Your task to perform on an android device: turn off sleep mode Image 0: 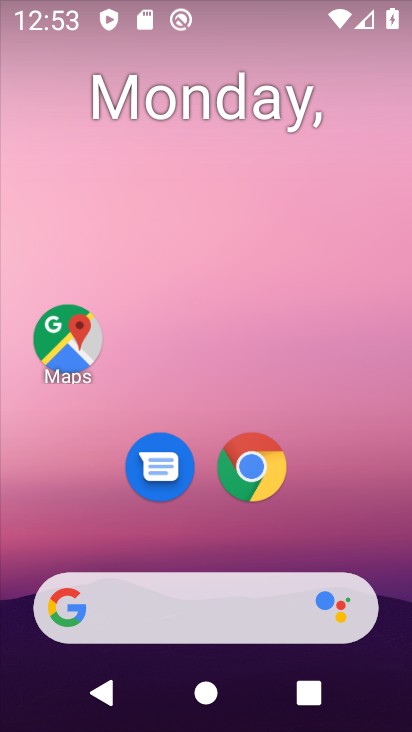
Step 0: drag from (345, 527) to (341, 9)
Your task to perform on an android device: turn off sleep mode Image 1: 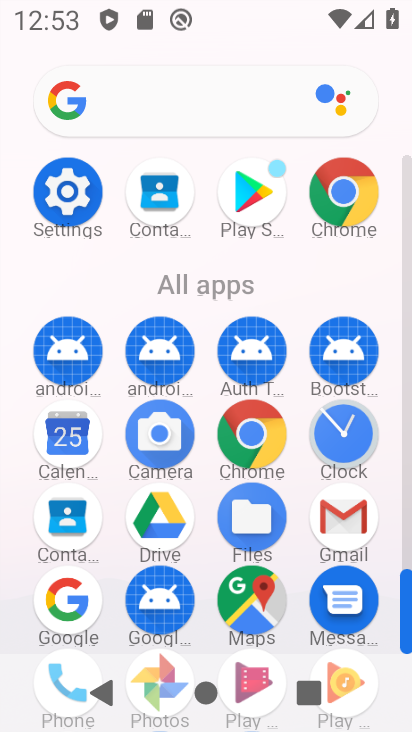
Step 1: click (68, 203)
Your task to perform on an android device: turn off sleep mode Image 2: 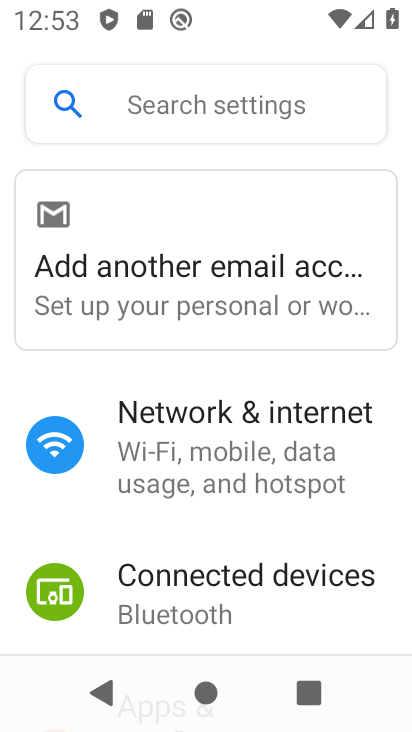
Step 2: drag from (214, 514) to (249, 155)
Your task to perform on an android device: turn off sleep mode Image 3: 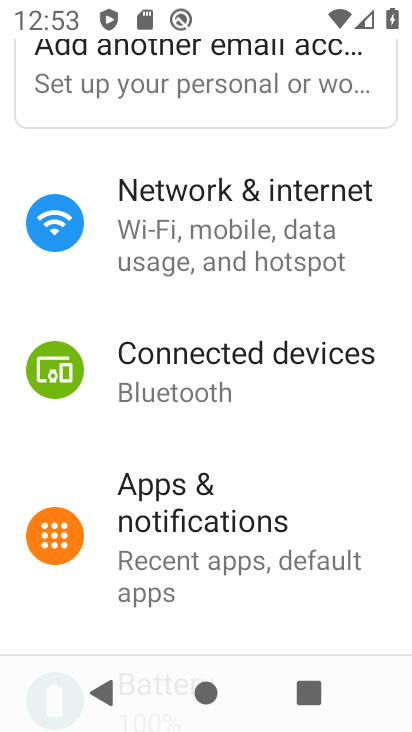
Step 3: drag from (240, 517) to (260, 296)
Your task to perform on an android device: turn off sleep mode Image 4: 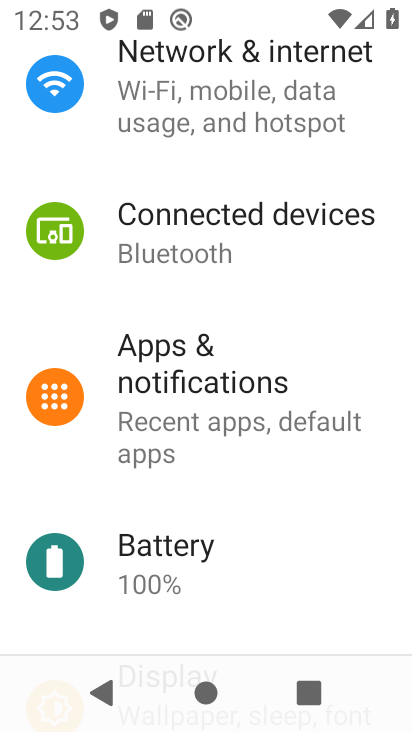
Step 4: drag from (248, 538) to (263, 341)
Your task to perform on an android device: turn off sleep mode Image 5: 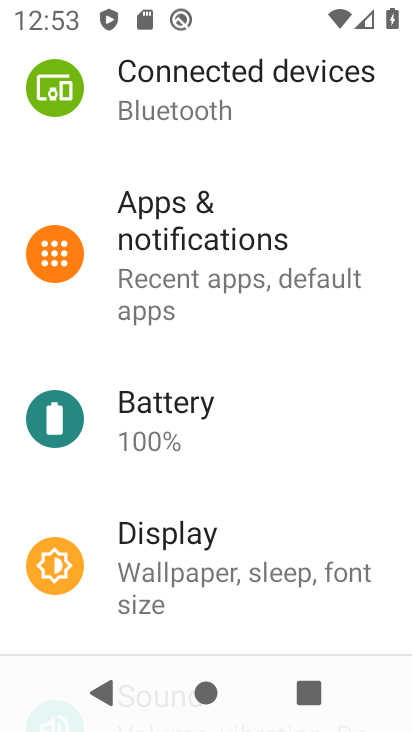
Step 5: click (246, 551)
Your task to perform on an android device: turn off sleep mode Image 6: 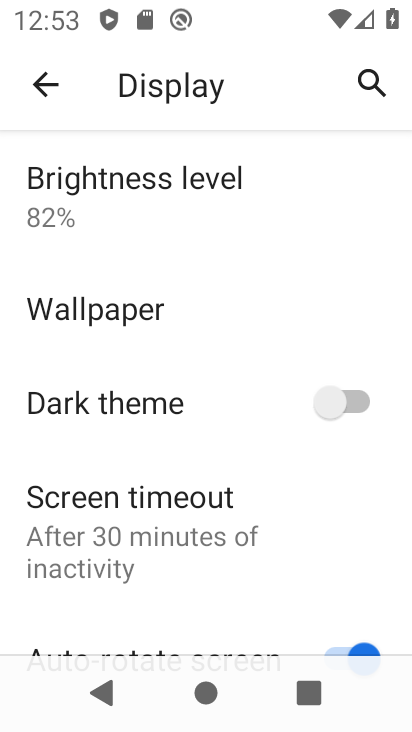
Step 6: drag from (201, 559) to (226, 169)
Your task to perform on an android device: turn off sleep mode Image 7: 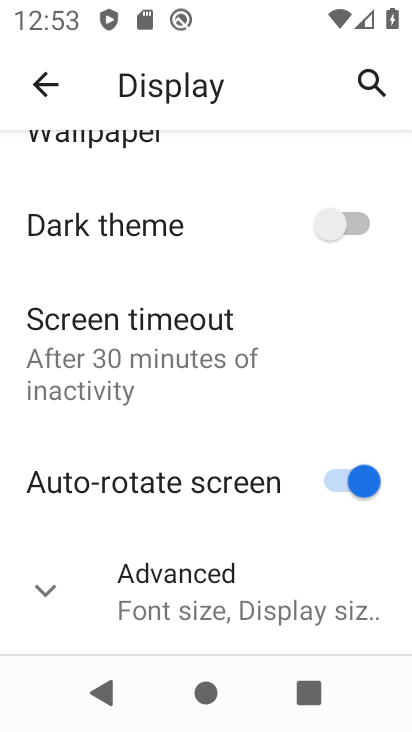
Step 7: click (190, 593)
Your task to perform on an android device: turn off sleep mode Image 8: 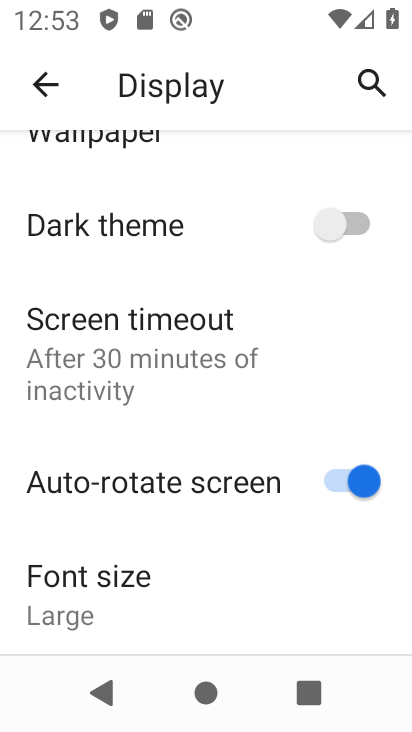
Step 8: task complete